Your task to perform on an android device: Go to privacy settings Image 0: 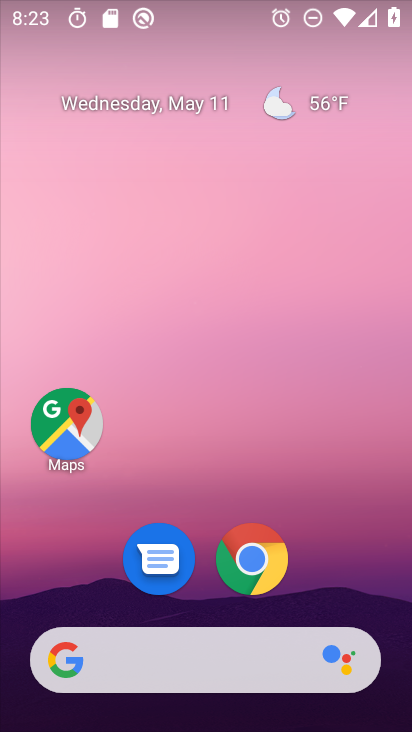
Step 0: drag from (337, 591) to (340, 81)
Your task to perform on an android device: Go to privacy settings Image 1: 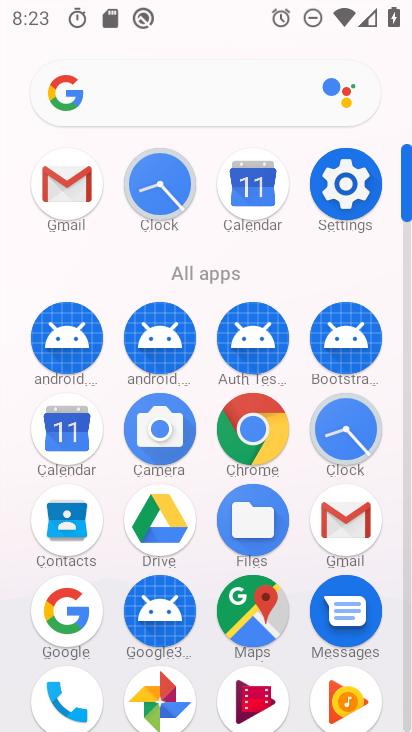
Step 1: click (347, 168)
Your task to perform on an android device: Go to privacy settings Image 2: 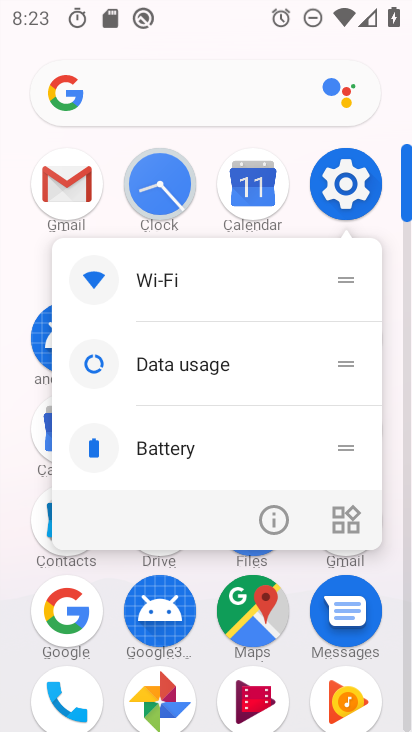
Step 2: click (347, 168)
Your task to perform on an android device: Go to privacy settings Image 3: 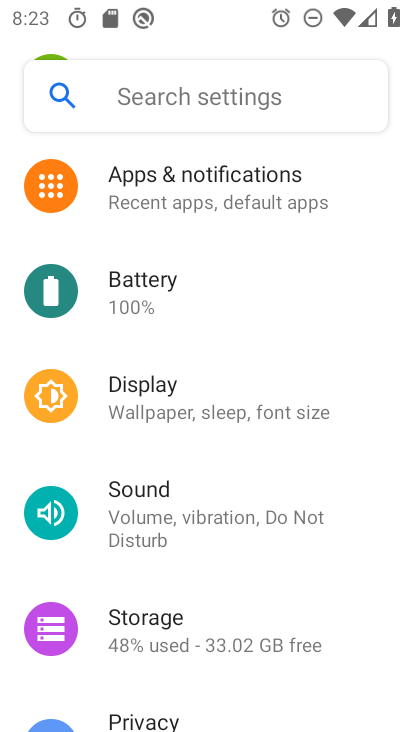
Step 3: drag from (271, 701) to (284, 275)
Your task to perform on an android device: Go to privacy settings Image 4: 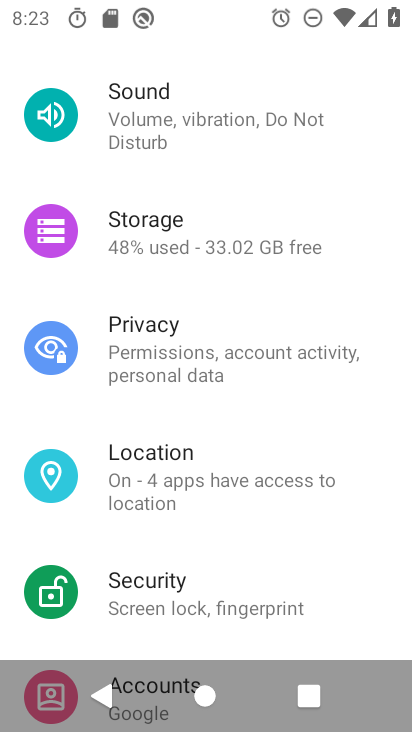
Step 4: drag from (190, 560) to (188, 180)
Your task to perform on an android device: Go to privacy settings Image 5: 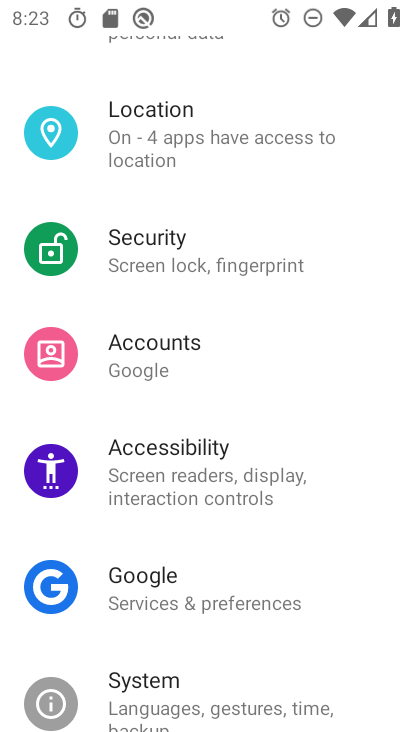
Step 5: click (227, 597)
Your task to perform on an android device: Go to privacy settings Image 6: 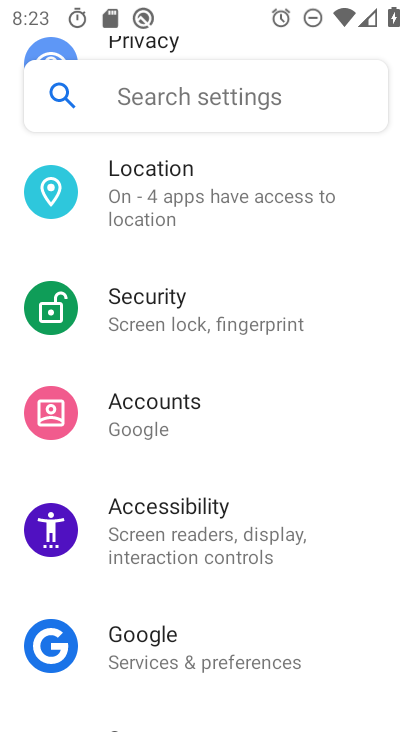
Step 6: drag from (275, 282) to (277, 575)
Your task to perform on an android device: Go to privacy settings Image 7: 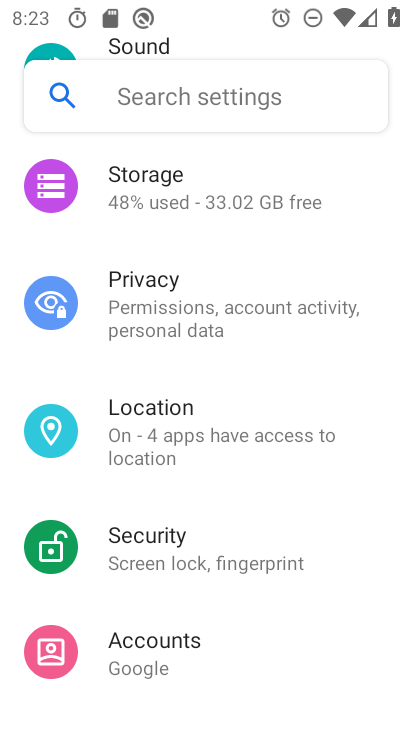
Step 7: click (253, 318)
Your task to perform on an android device: Go to privacy settings Image 8: 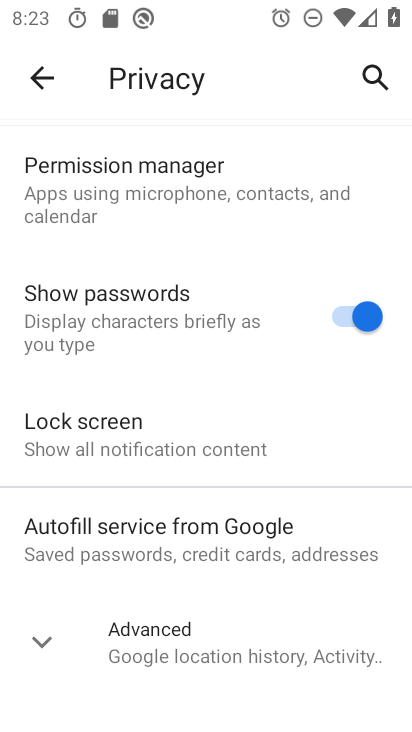
Step 8: task complete